Your task to perform on an android device: Search for seafood restaurants on Google Maps Image 0: 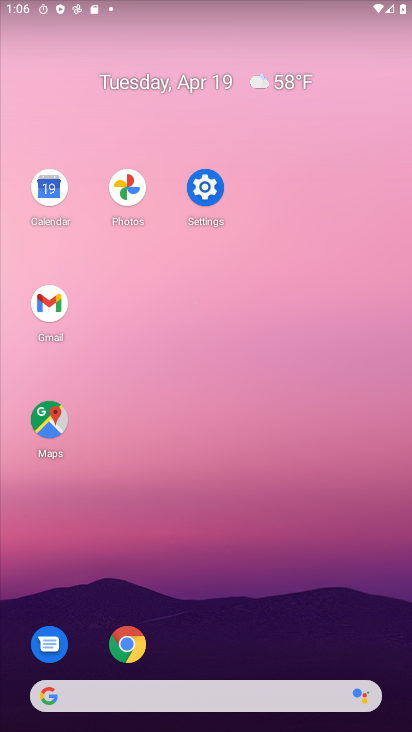
Step 0: click (44, 428)
Your task to perform on an android device: Search for seafood restaurants on Google Maps Image 1: 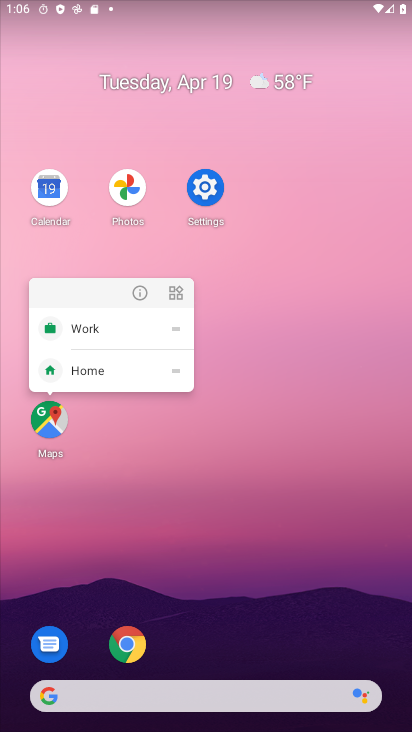
Step 1: click (44, 428)
Your task to perform on an android device: Search for seafood restaurants on Google Maps Image 2: 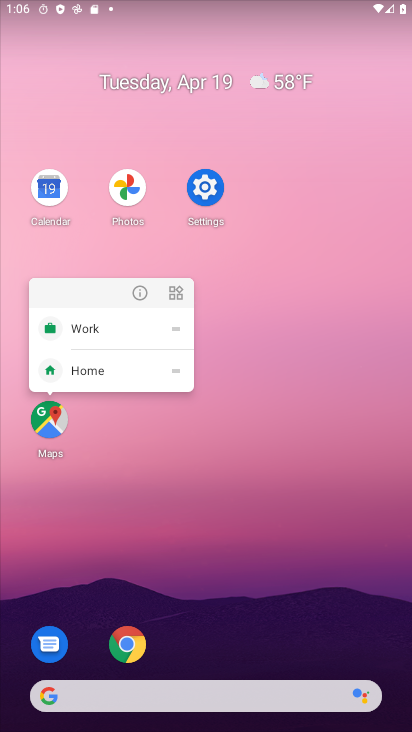
Step 2: click (44, 428)
Your task to perform on an android device: Search for seafood restaurants on Google Maps Image 3: 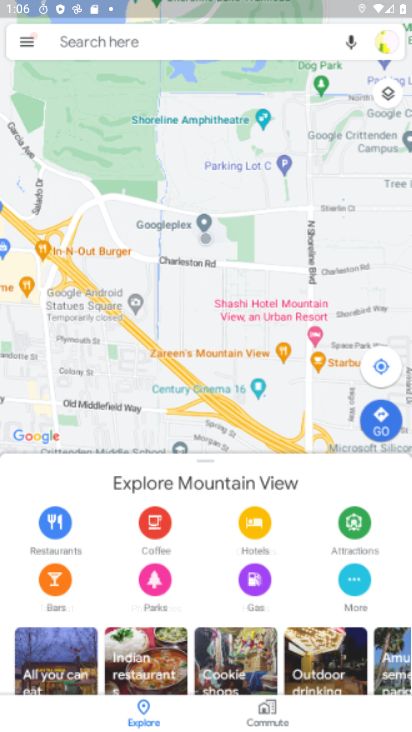
Step 3: click (101, 44)
Your task to perform on an android device: Search for seafood restaurants on Google Maps Image 4: 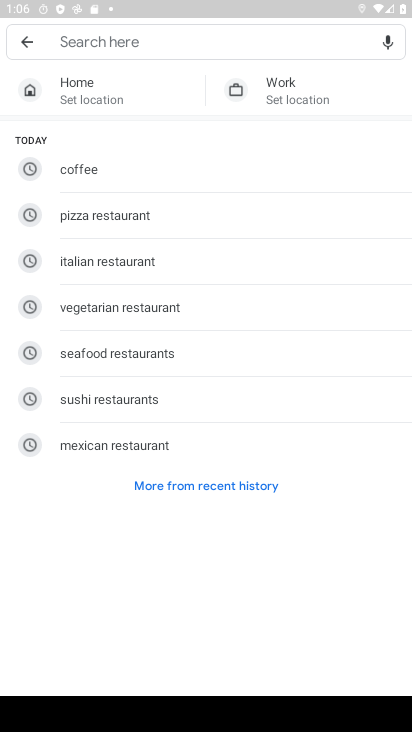
Step 4: type "seafood restaurants"
Your task to perform on an android device: Search for seafood restaurants on Google Maps Image 5: 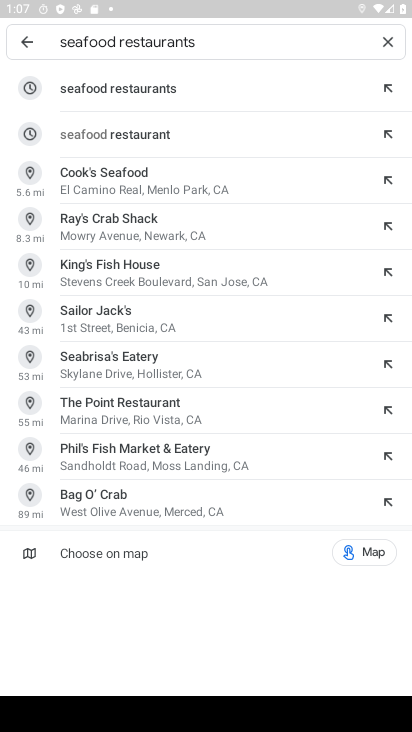
Step 5: task complete